Your task to perform on an android device: turn off picture-in-picture Image 0: 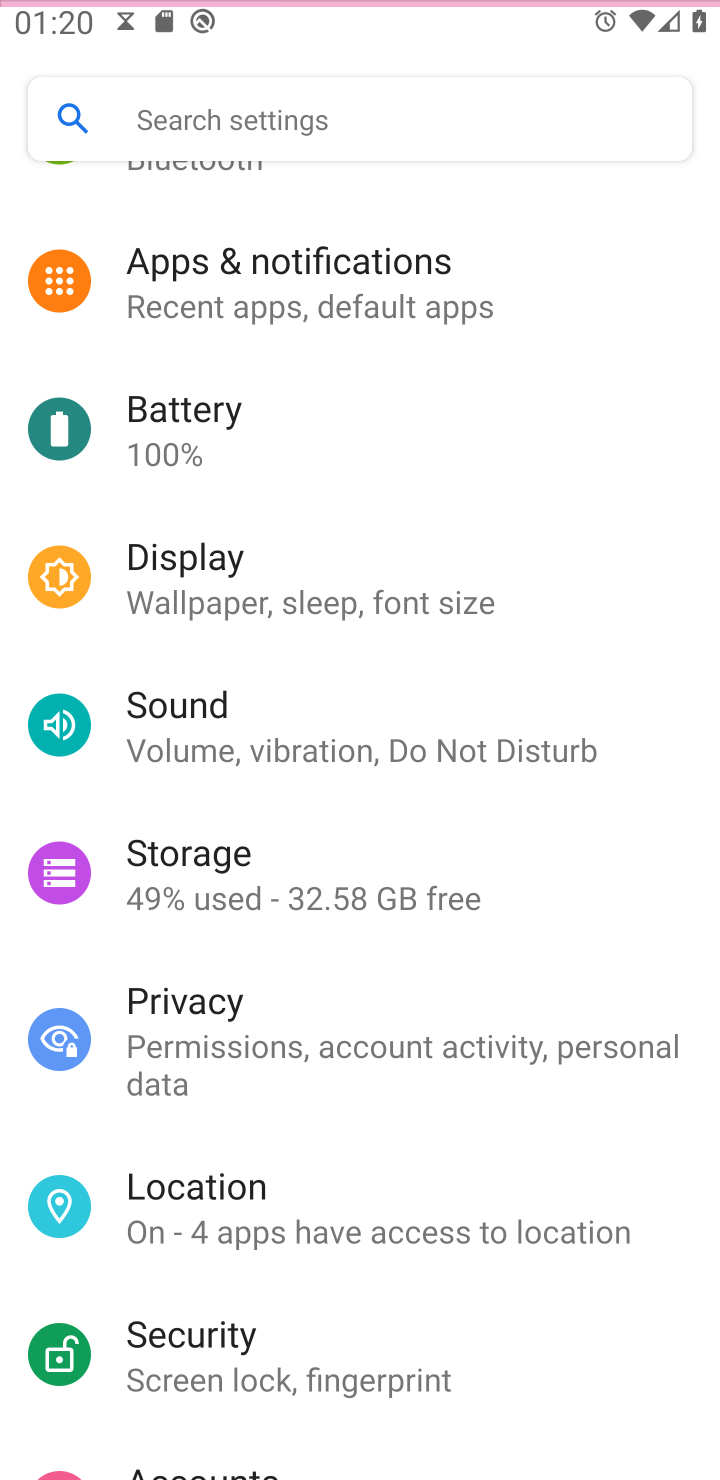
Step 0: press home button
Your task to perform on an android device: turn off picture-in-picture Image 1: 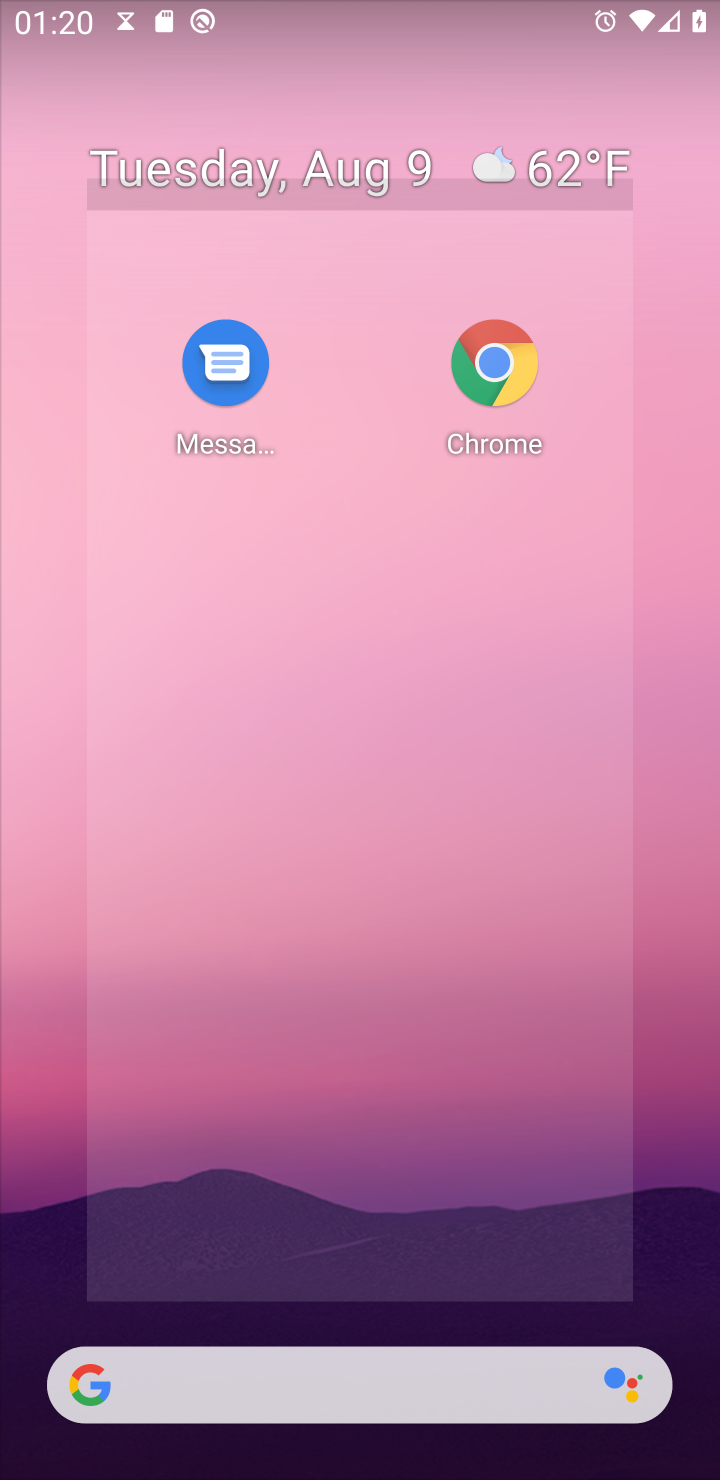
Step 1: drag from (468, 1144) to (485, 643)
Your task to perform on an android device: turn off picture-in-picture Image 2: 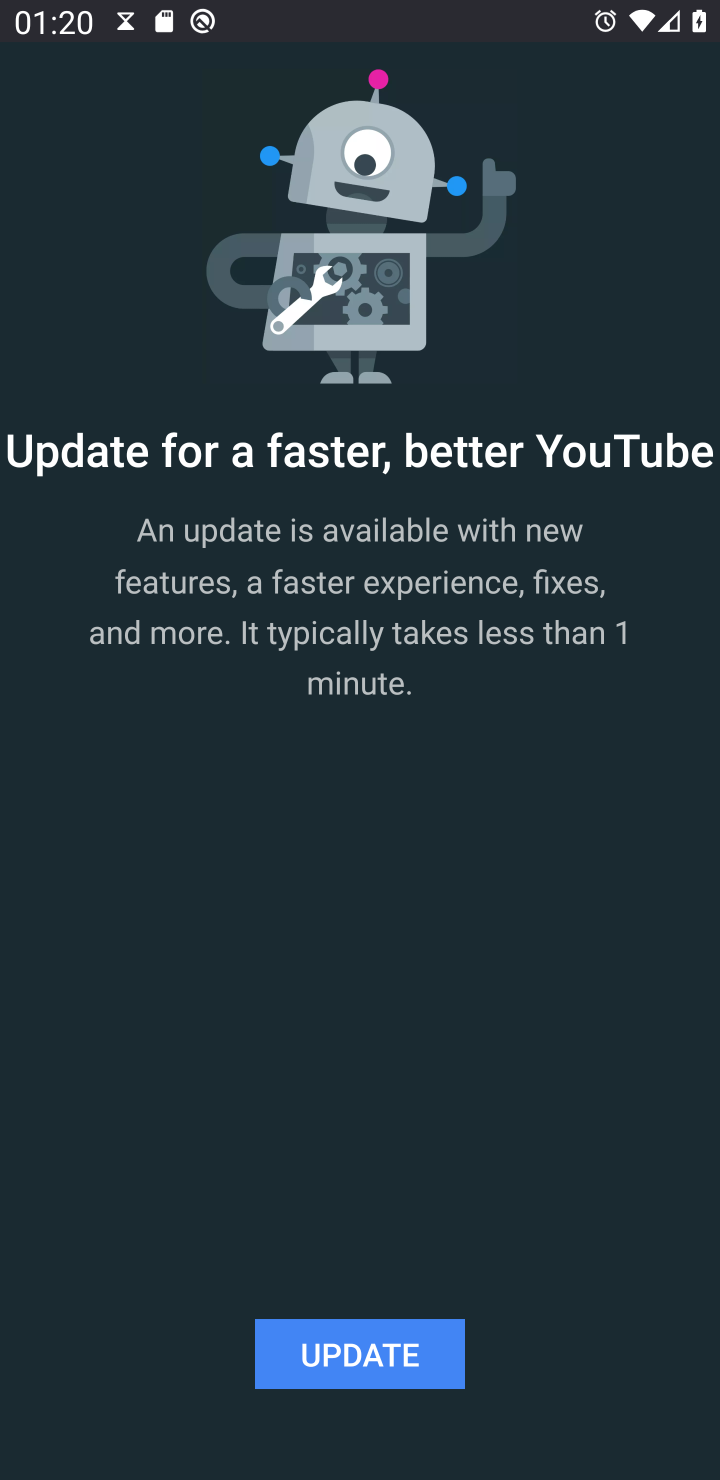
Step 2: press home button
Your task to perform on an android device: turn off picture-in-picture Image 3: 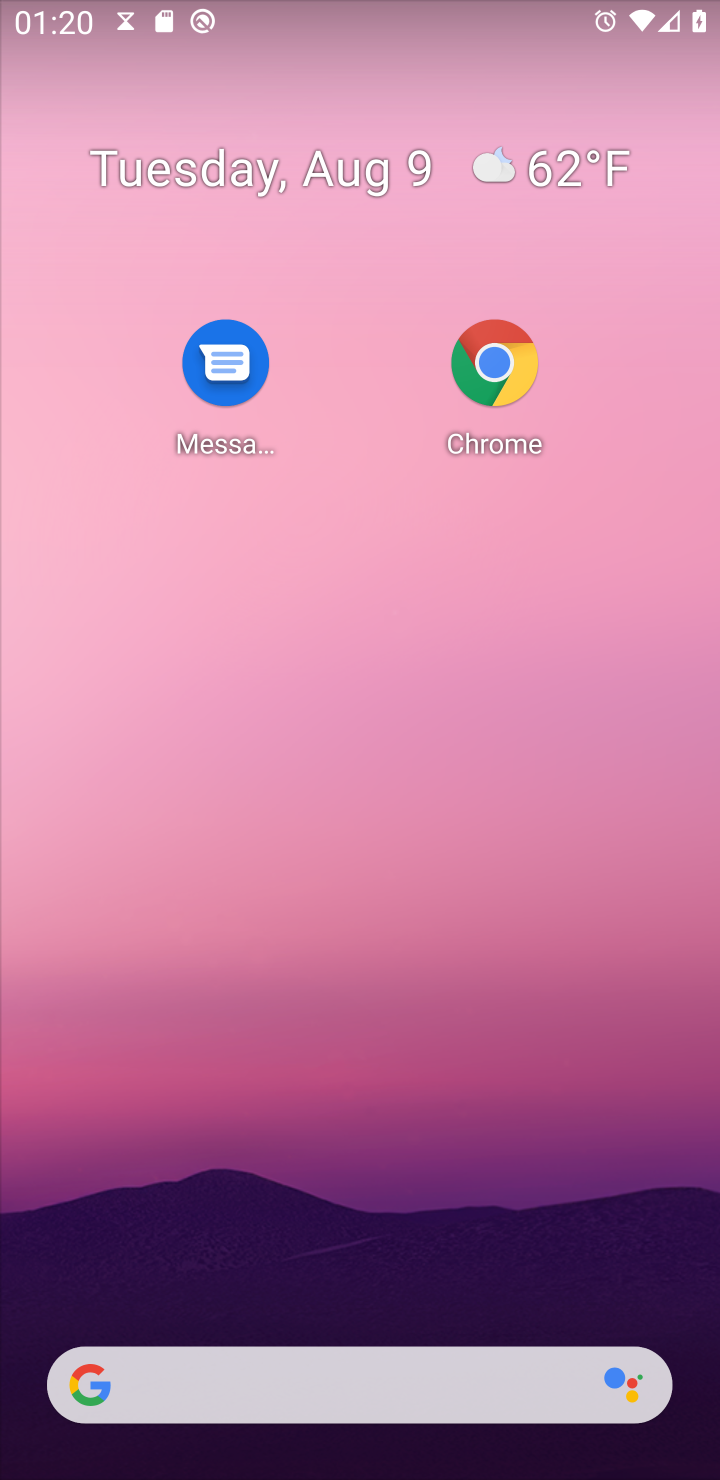
Step 3: drag from (365, 1227) to (422, 419)
Your task to perform on an android device: turn off picture-in-picture Image 4: 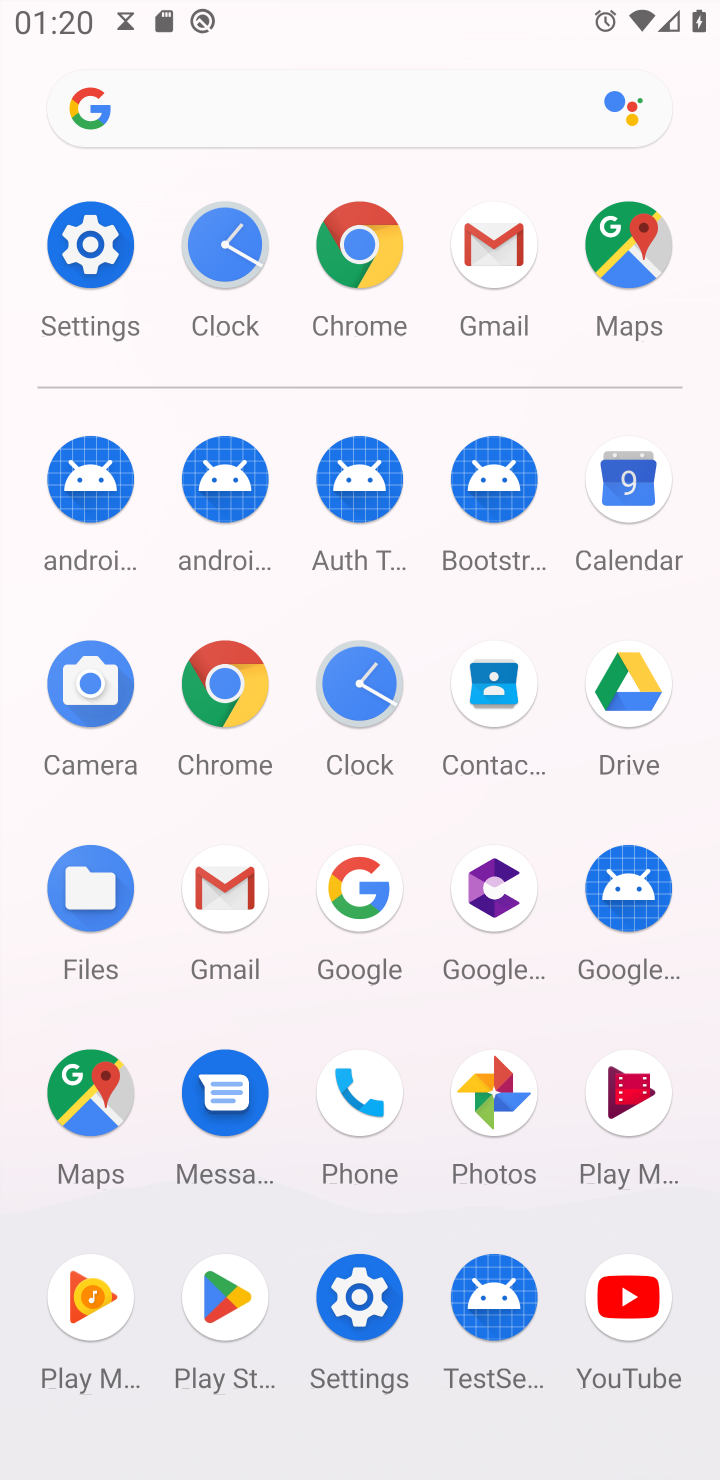
Step 4: click (98, 223)
Your task to perform on an android device: turn off picture-in-picture Image 5: 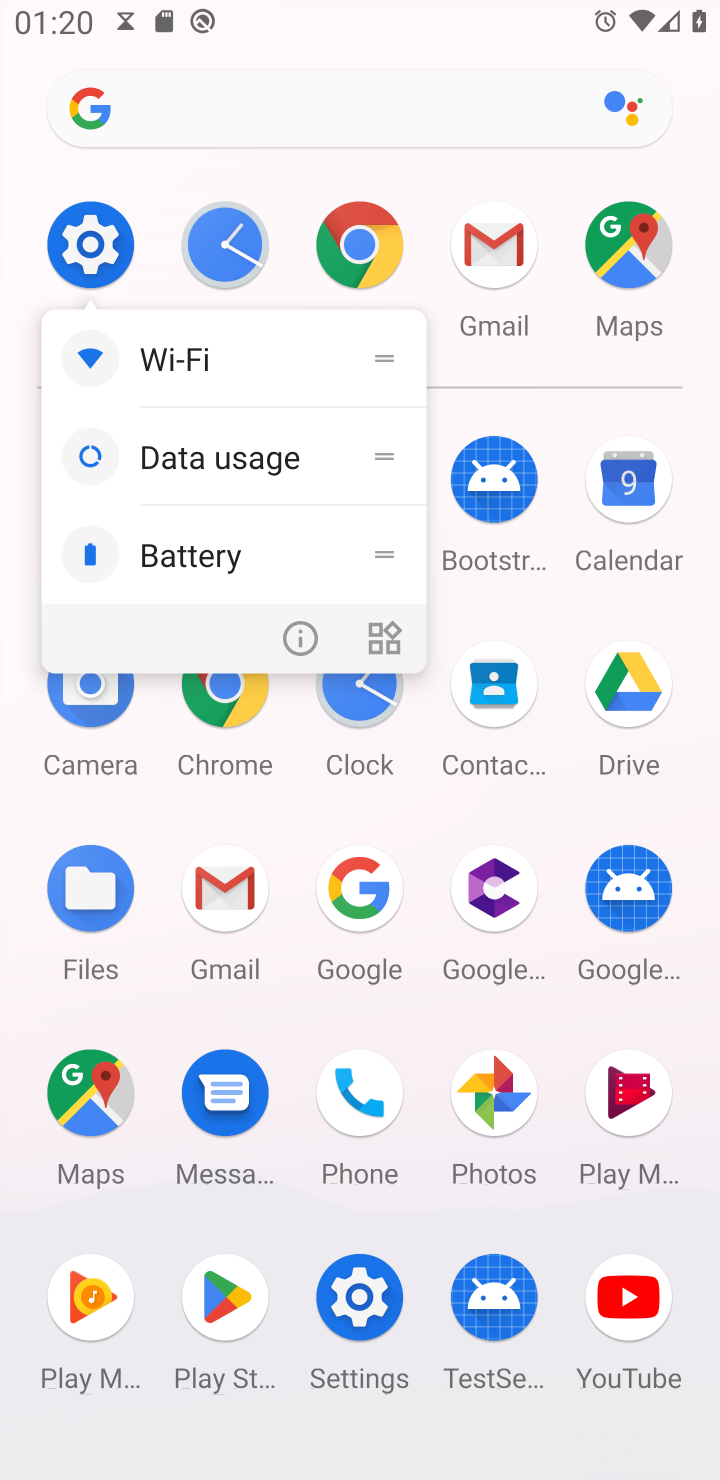
Step 5: click (78, 215)
Your task to perform on an android device: turn off picture-in-picture Image 6: 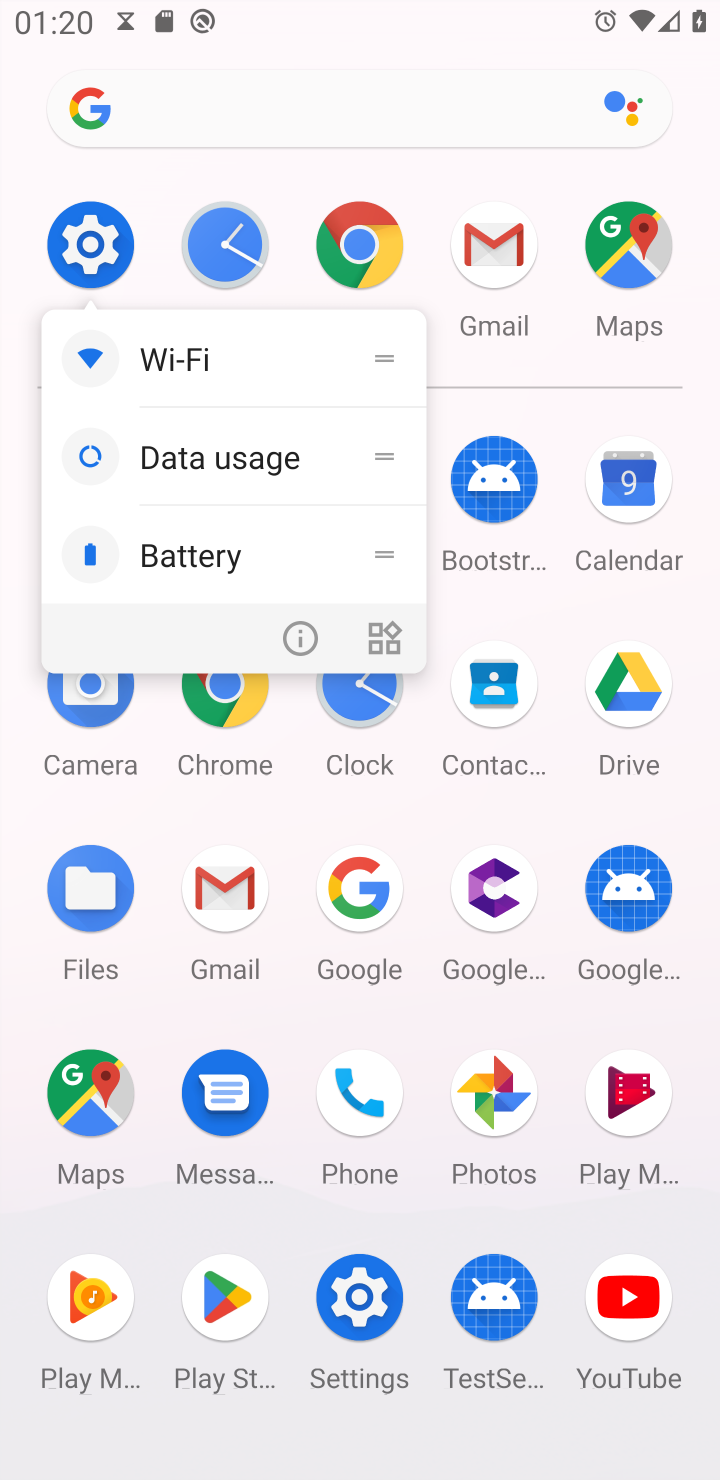
Step 6: click (107, 248)
Your task to perform on an android device: turn off picture-in-picture Image 7: 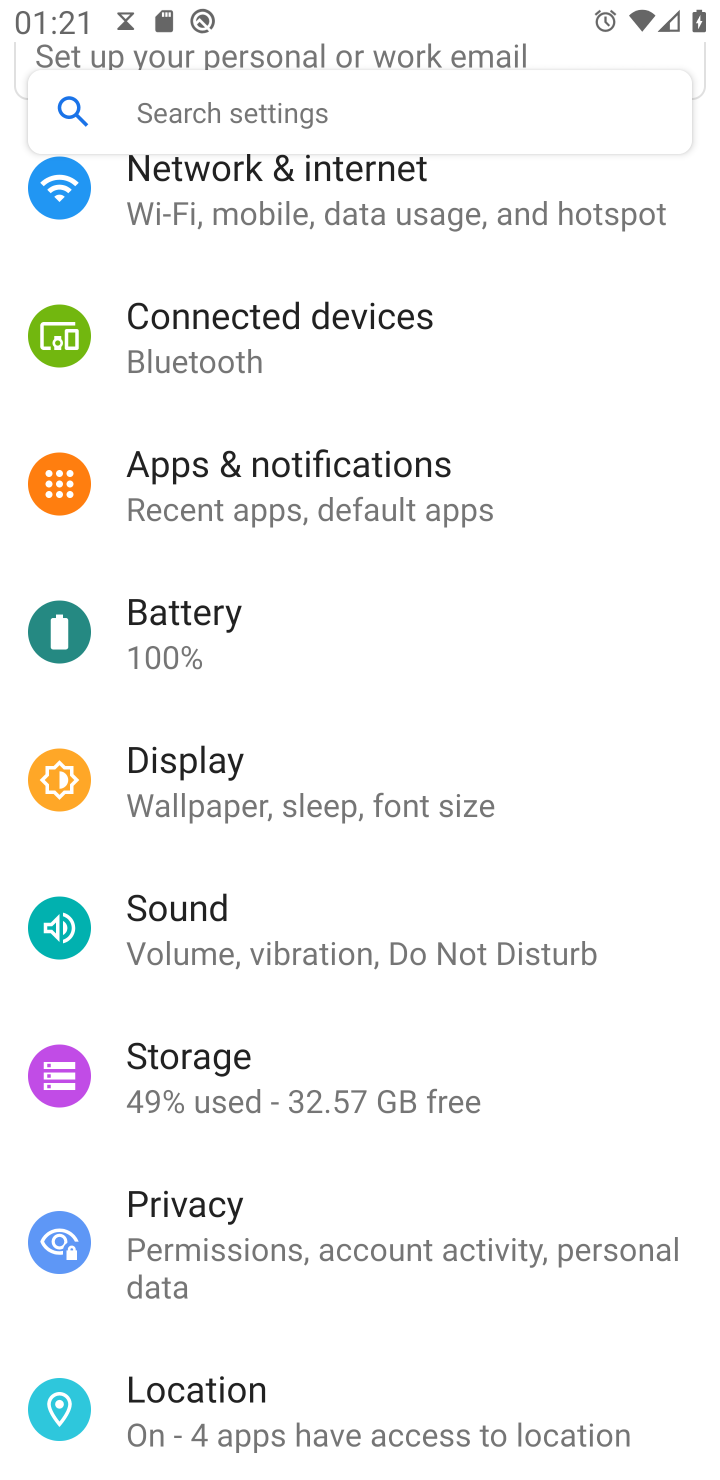
Step 7: click (276, 512)
Your task to perform on an android device: turn off picture-in-picture Image 8: 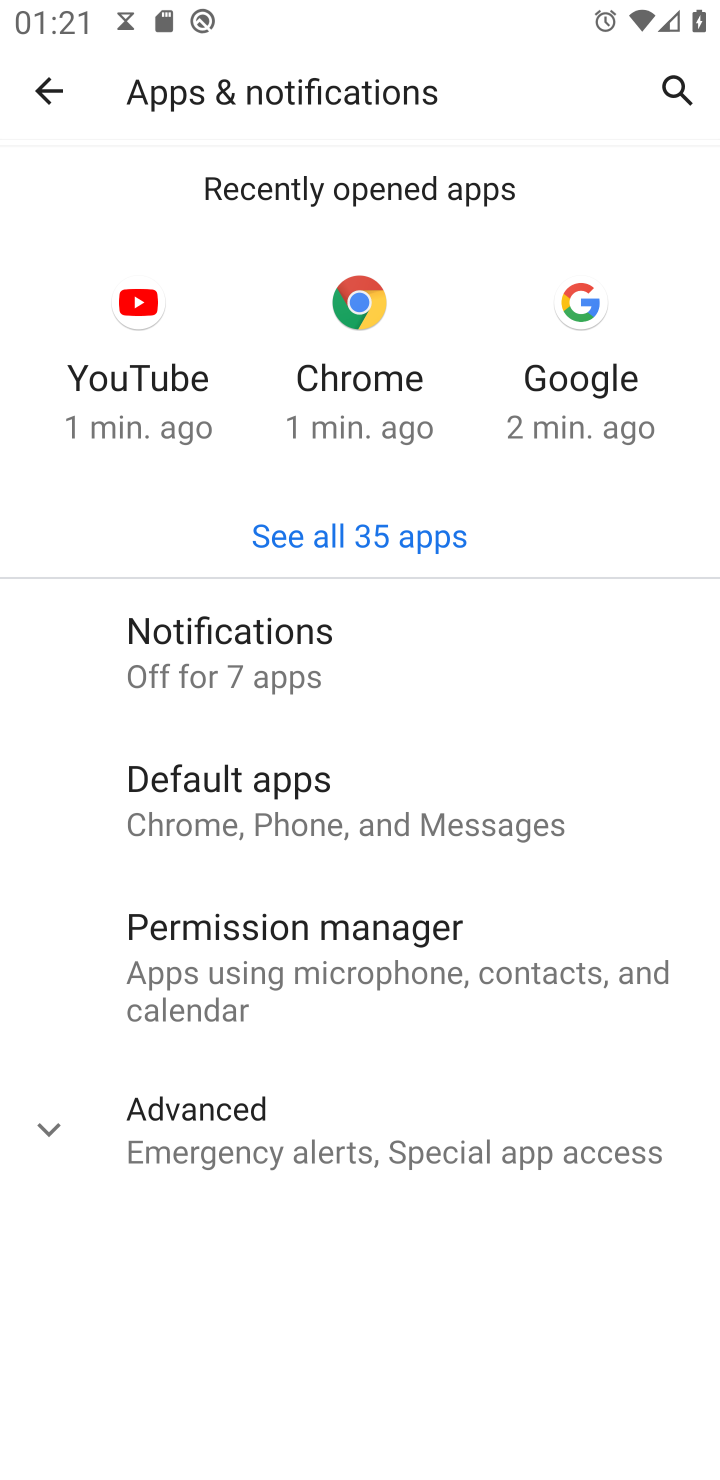
Step 8: click (345, 1061)
Your task to perform on an android device: turn off picture-in-picture Image 9: 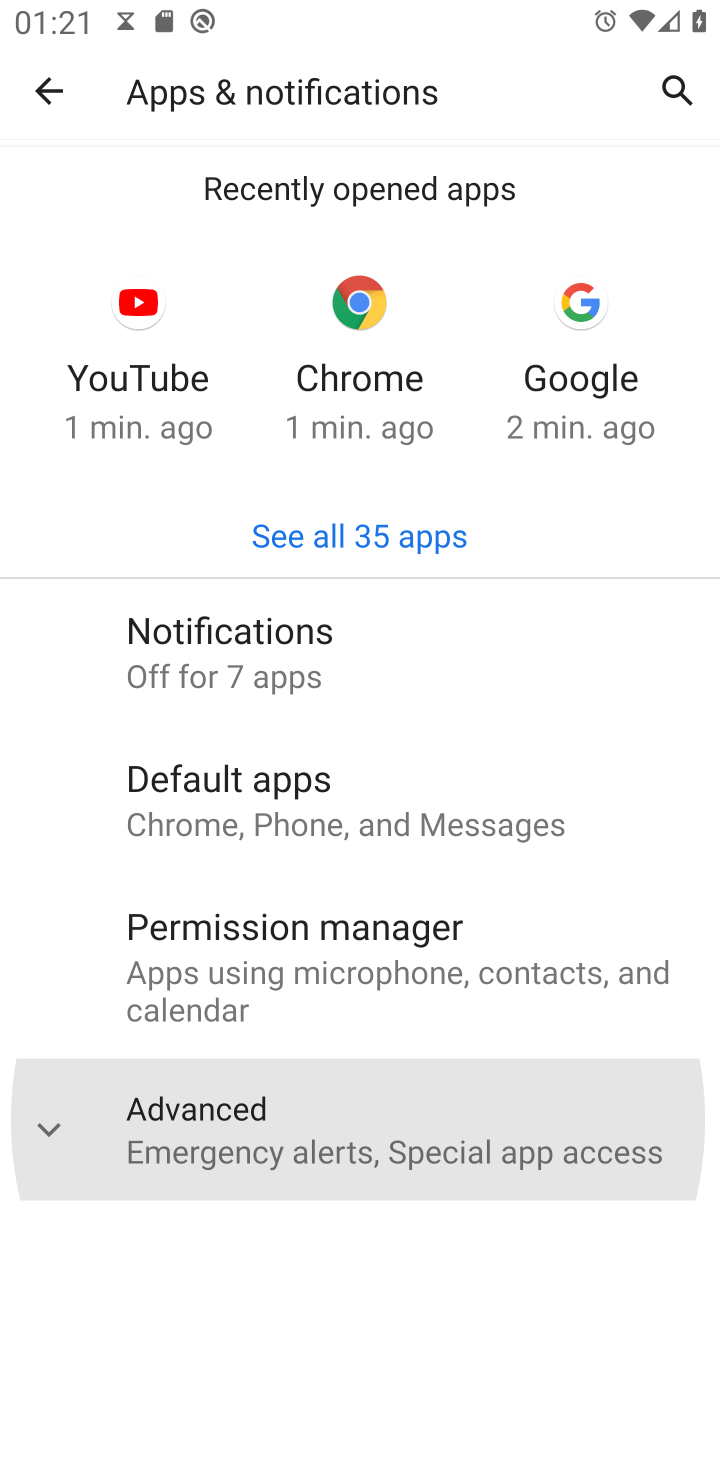
Step 9: click (337, 1105)
Your task to perform on an android device: turn off picture-in-picture Image 10: 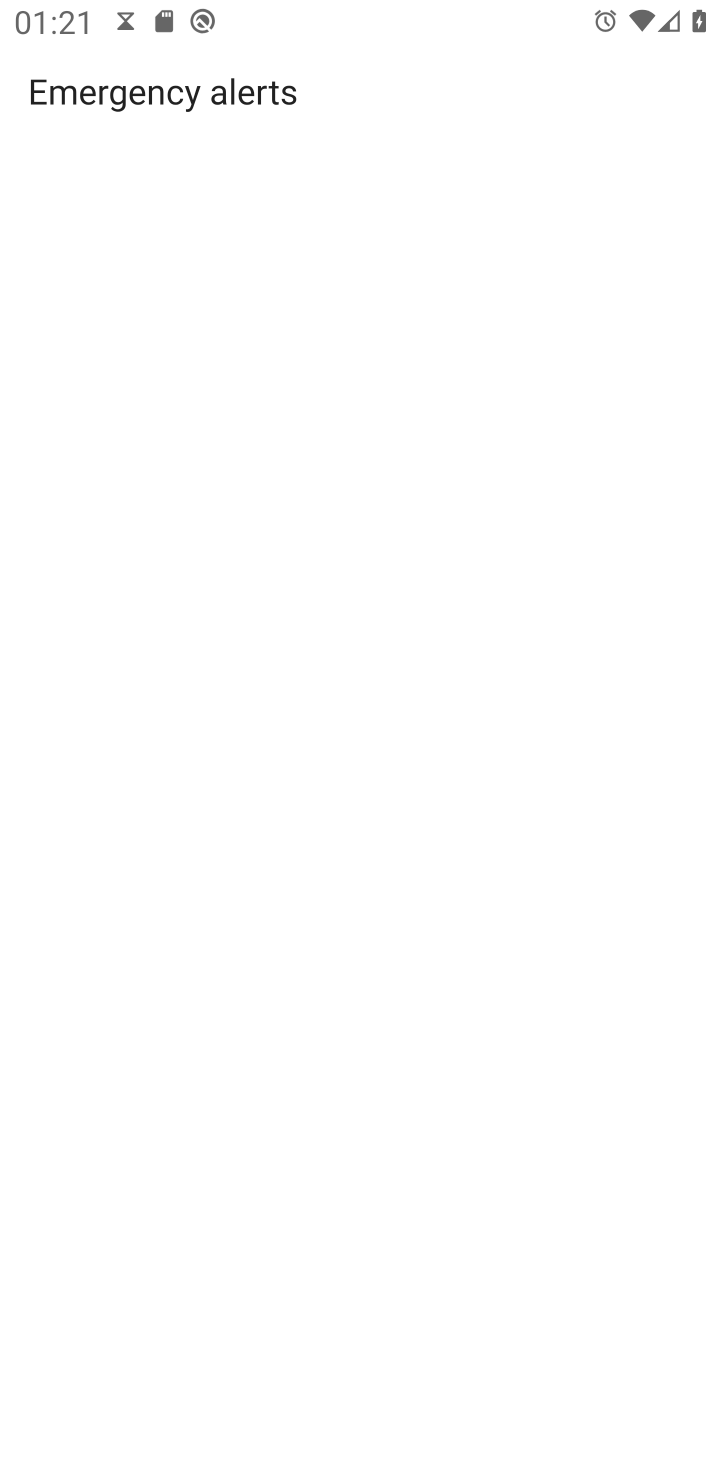
Step 10: click (317, 1267)
Your task to perform on an android device: turn off picture-in-picture Image 11: 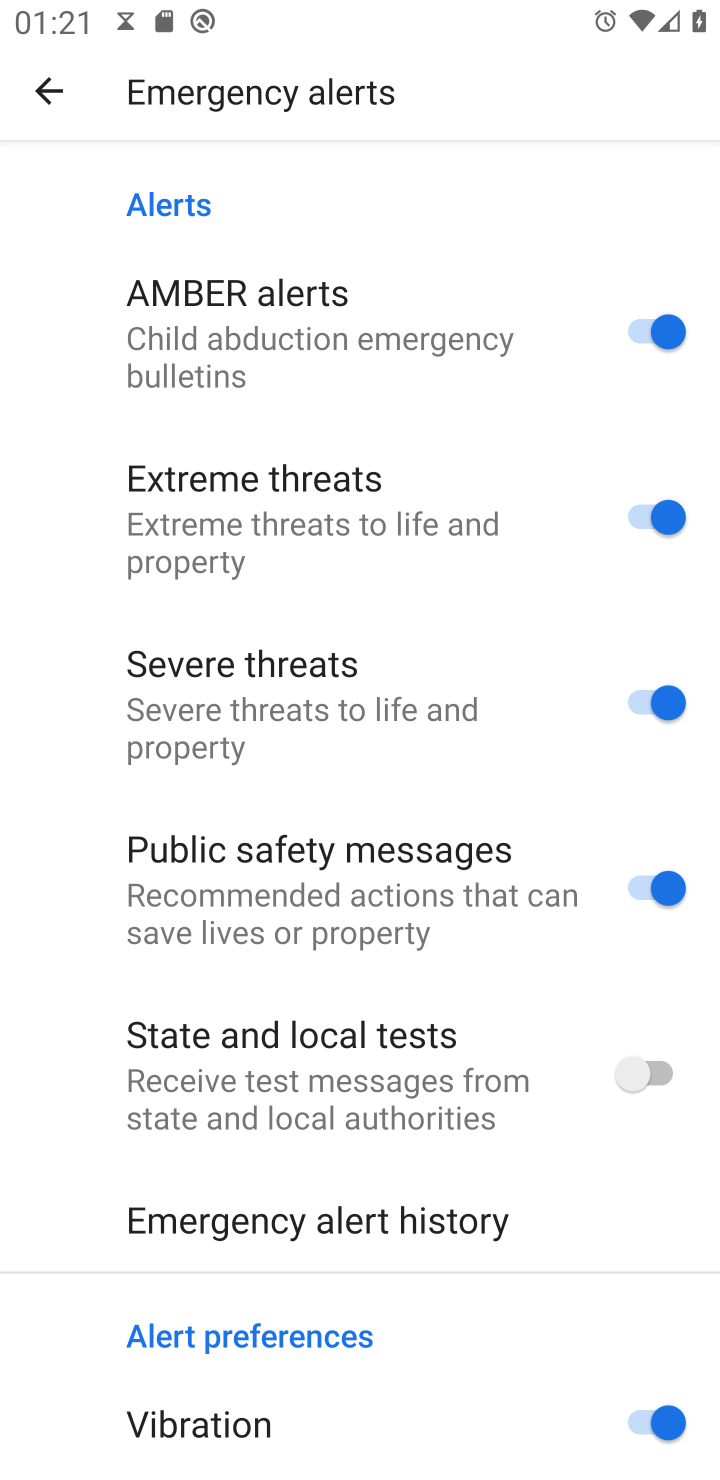
Step 11: click (51, 81)
Your task to perform on an android device: turn off picture-in-picture Image 12: 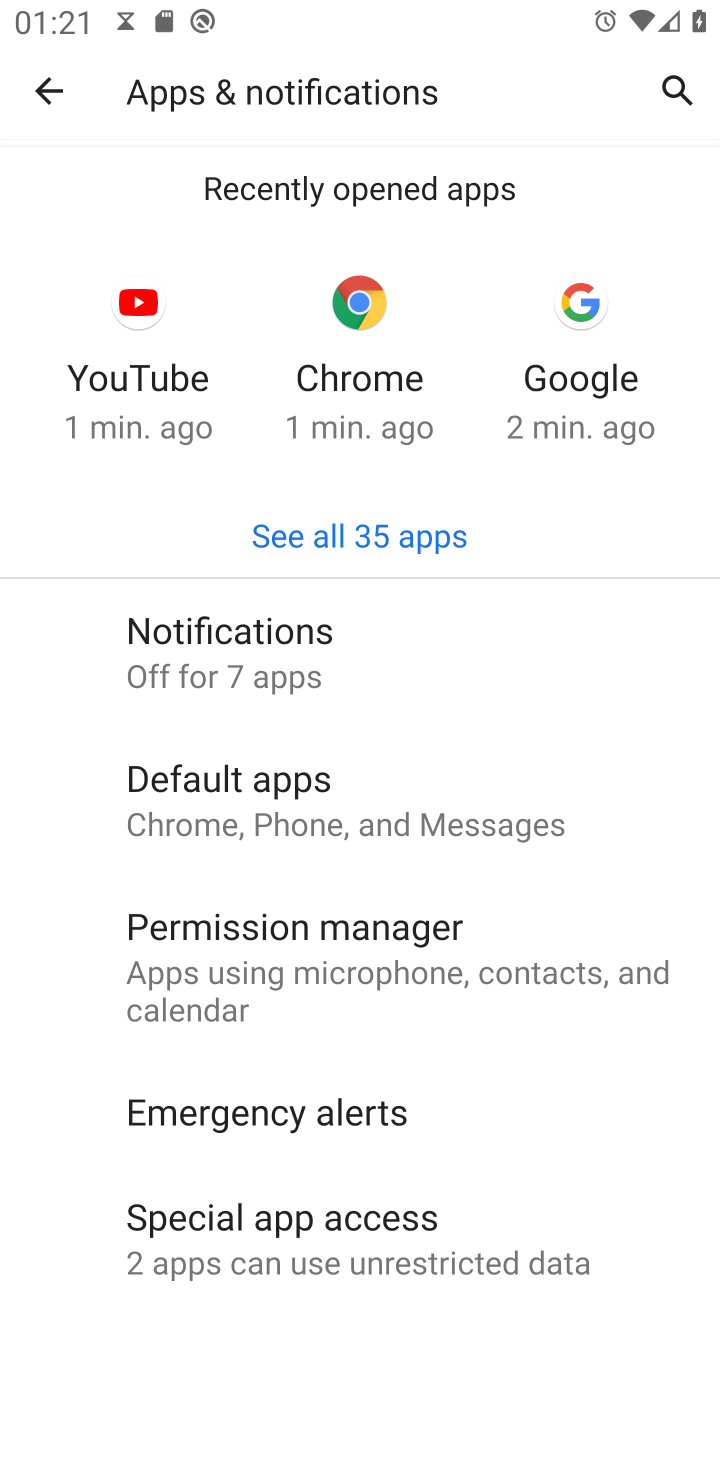
Step 12: click (364, 1250)
Your task to perform on an android device: turn off picture-in-picture Image 13: 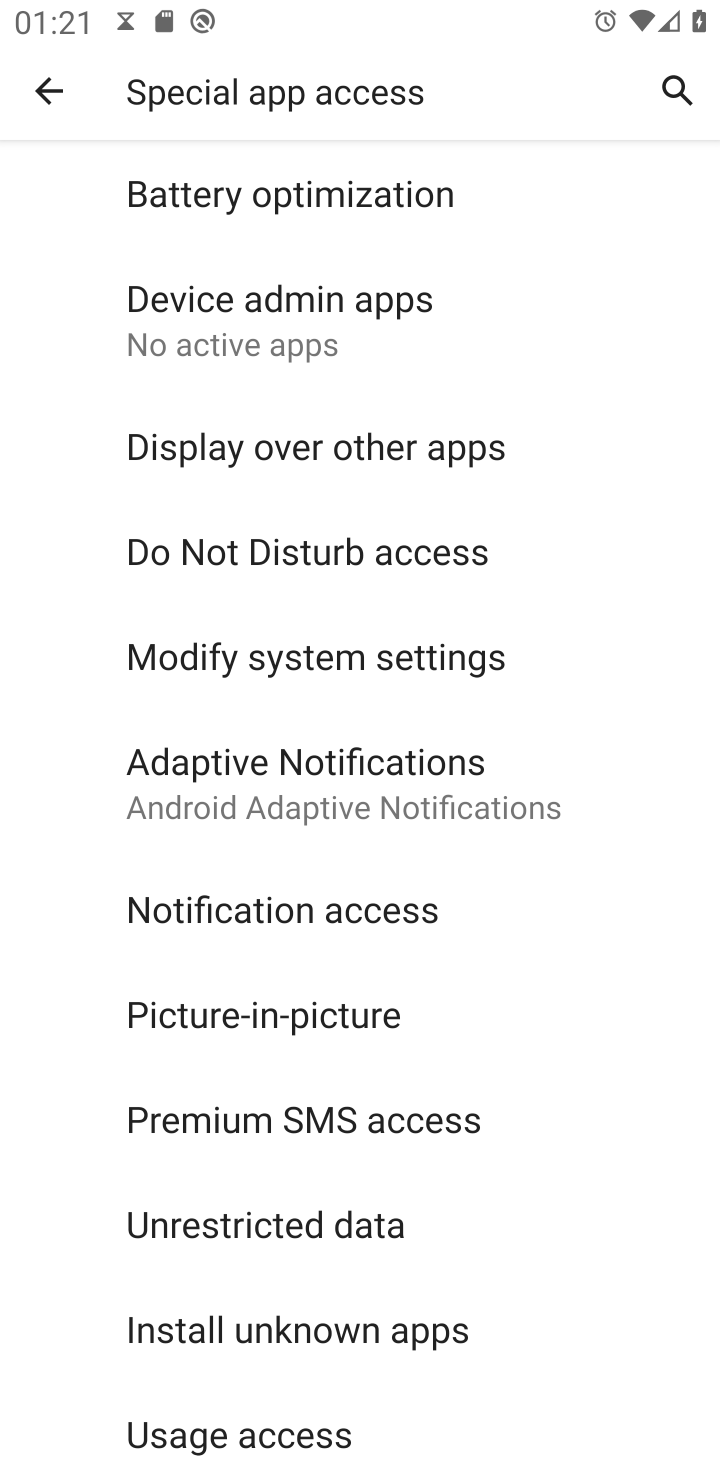
Step 13: click (316, 988)
Your task to perform on an android device: turn off picture-in-picture Image 14: 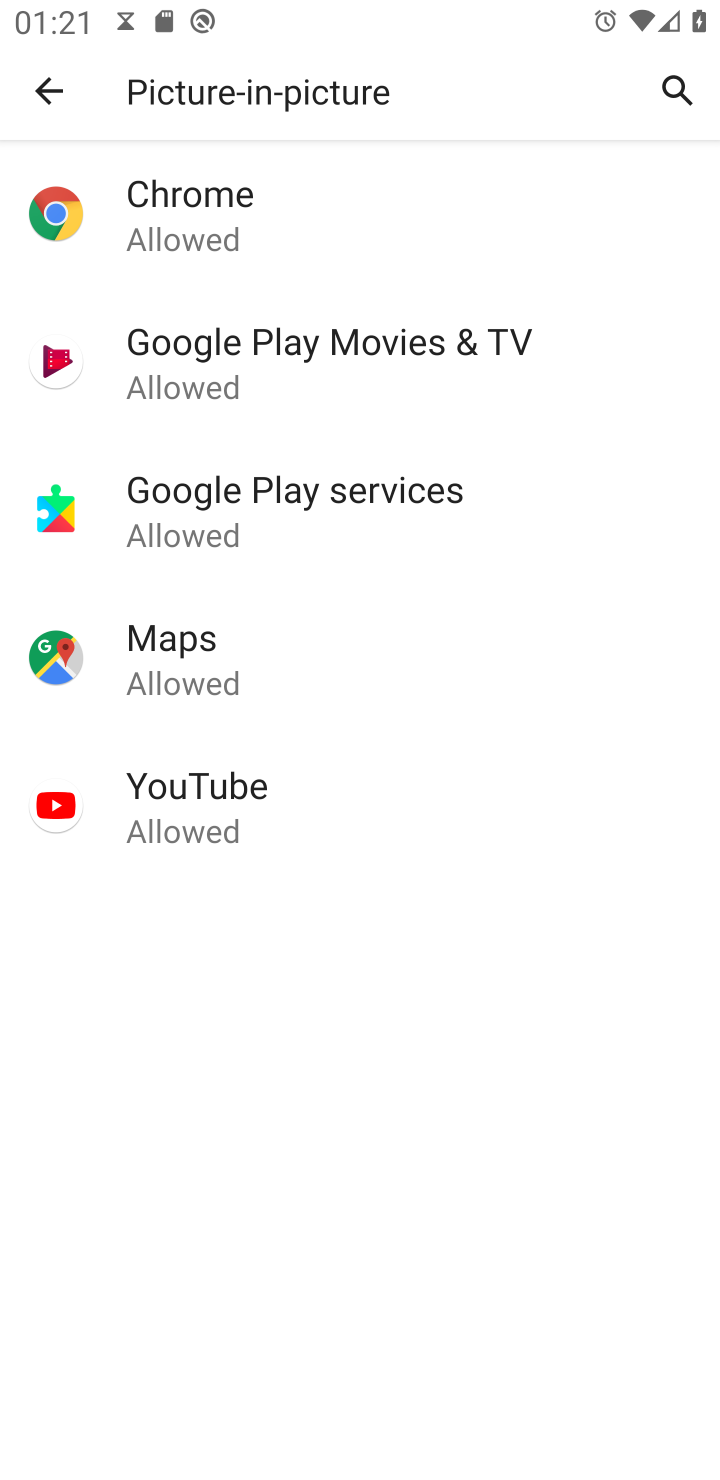
Step 14: click (193, 816)
Your task to perform on an android device: turn off picture-in-picture Image 15: 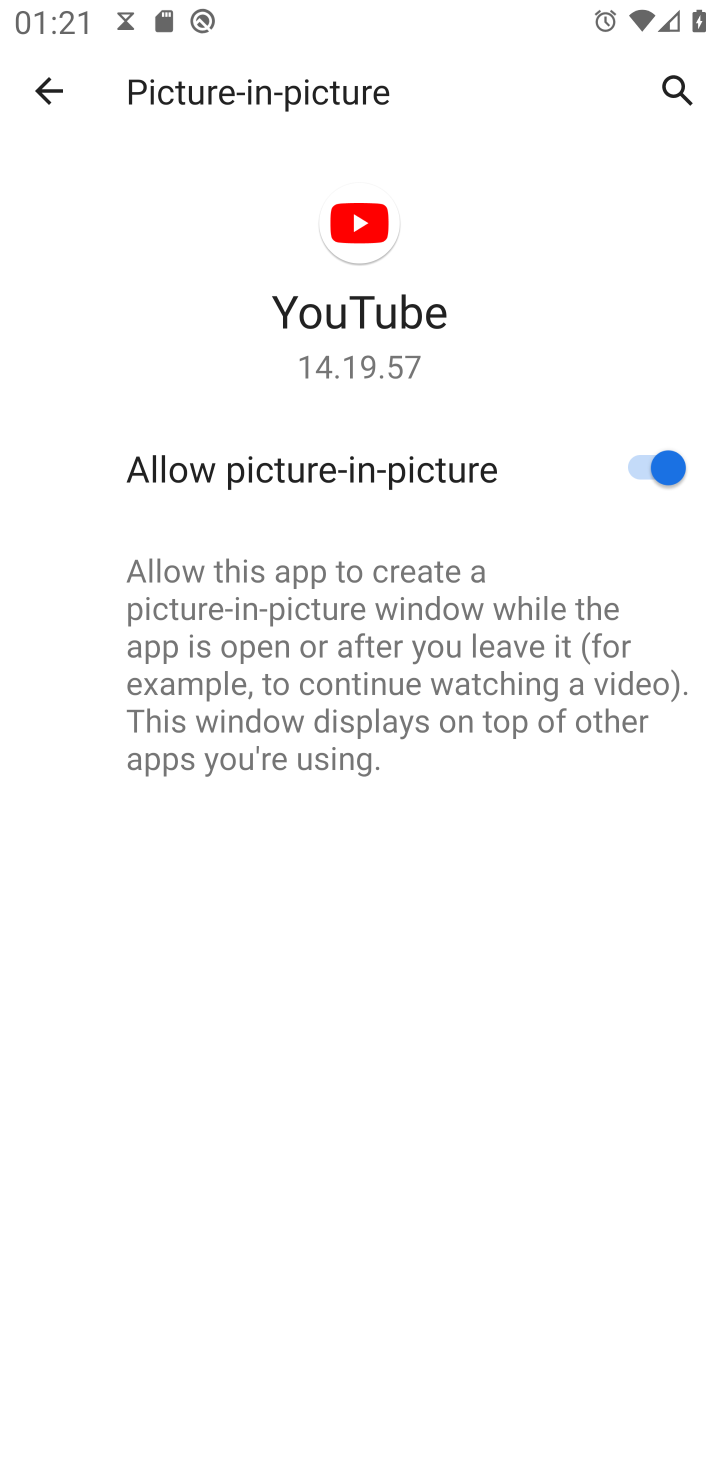
Step 15: click (651, 462)
Your task to perform on an android device: turn off picture-in-picture Image 16: 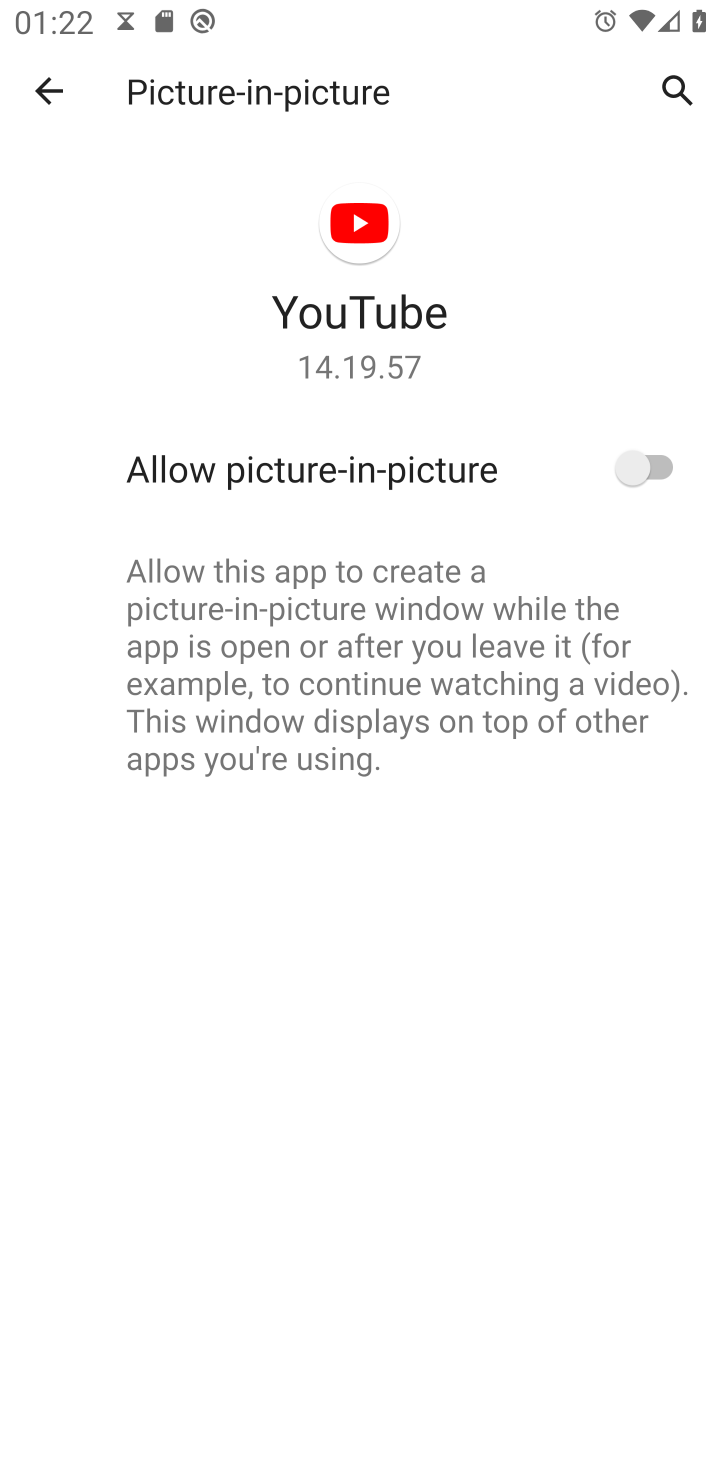
Step 16: task complete